Your task to perform on an android device: set the timer Image 0: 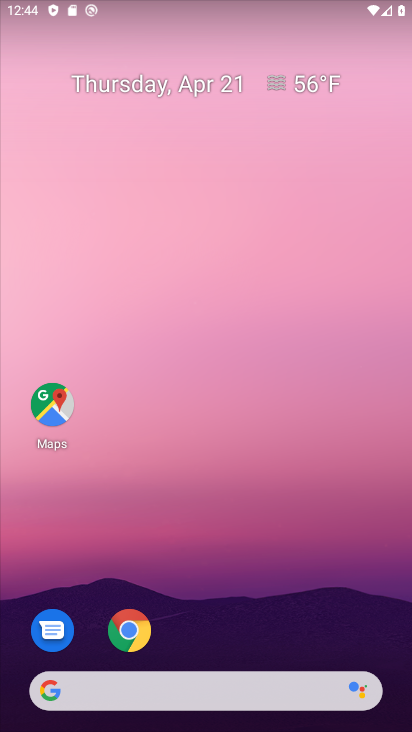
Step 0: drag from (219, 602) to (222, 218)
Your task to perform on an android device: set the timer Image 1: 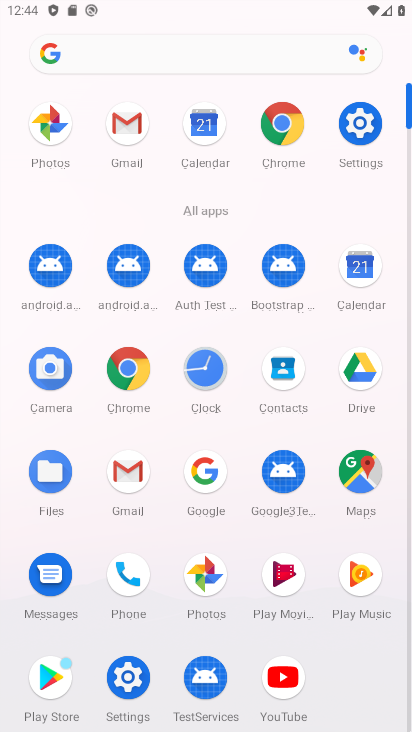
Step 1: click (205, 387)
Your task to perform on an android device: set the timer Image 2: 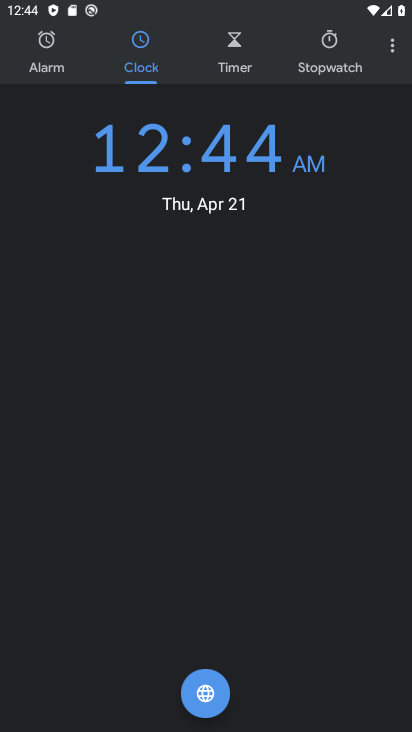
Step 2: click (234, 68)
Your task to perform on an android device: set the timer Image 3: 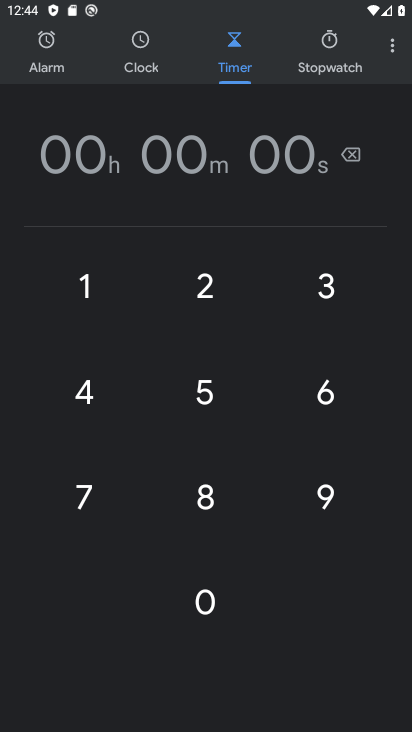
Step 3: click (98, 399)
Your task to perform on an android device: set the timer Image 4: 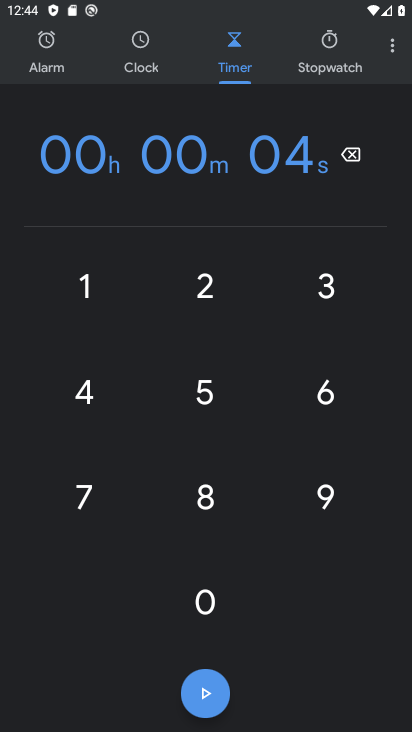
Step 4: click (278, 476)
Your task to perform on an android device: set the timer Image 5: 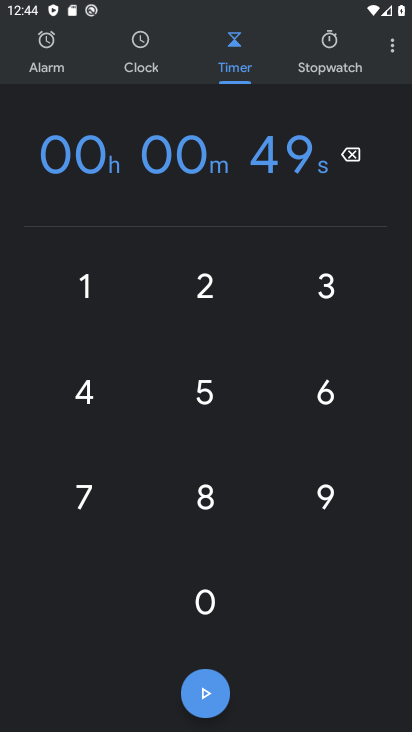
Step 5: click (203, 517)
Your task to perform on an android device: set the timer Image 6: 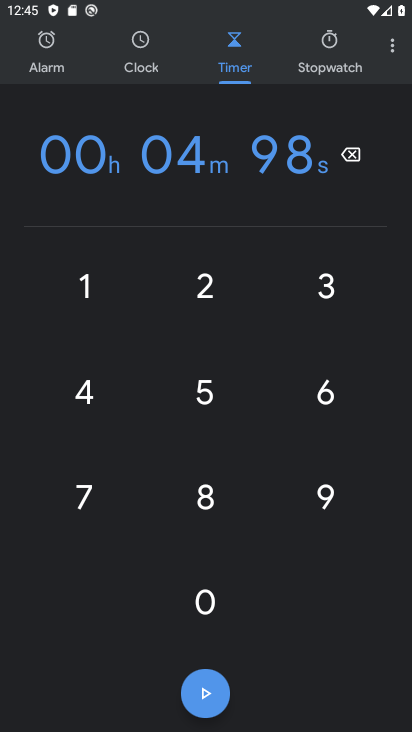
Step 6: click (198, 695)
Your task to perform on an android device: set the timer Image 7: 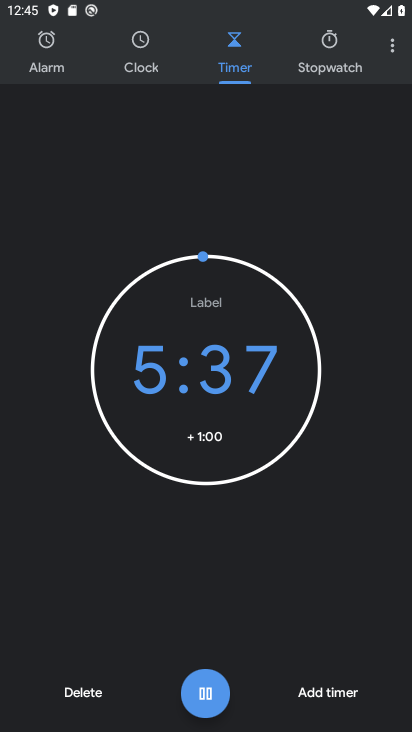
Step 7: task complete